Your task to perform on an android device: Open Chrome and go to settings Image 0: 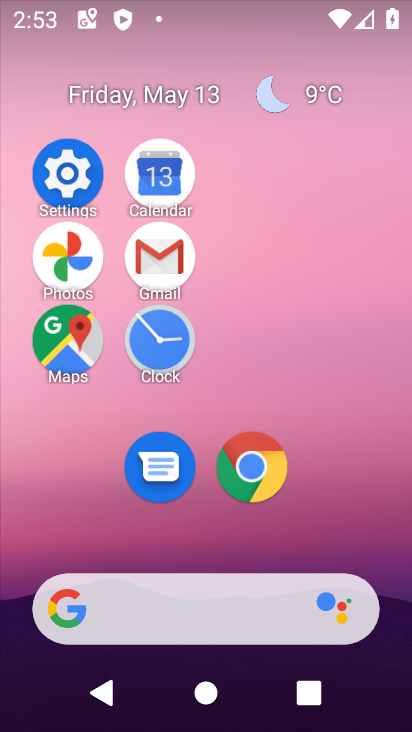
Step 0: click (256, 460)
Your task to perform on an android device: Open Chrome and go to settings Image 1: 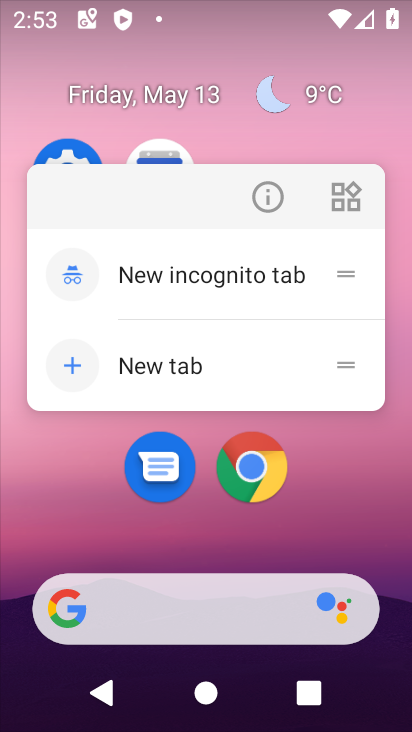
Step 1: click (253, 457)
Your task to perform on an android device: Open Chrome and go to settings Image 2: 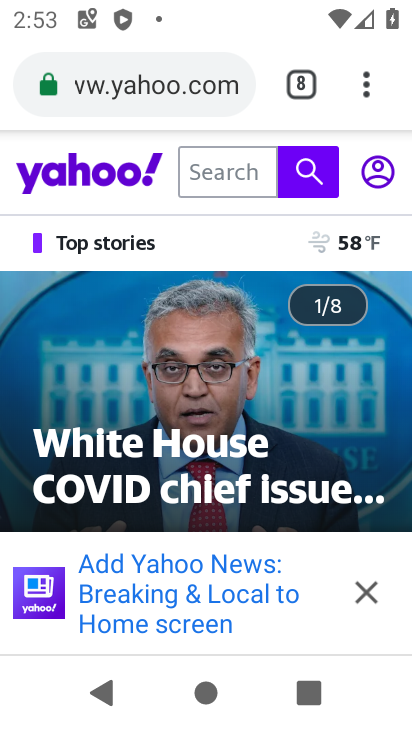
Step 2: click (371, 90)
Your task to perform on an android device: Open Chrome and go to settings Image 3: 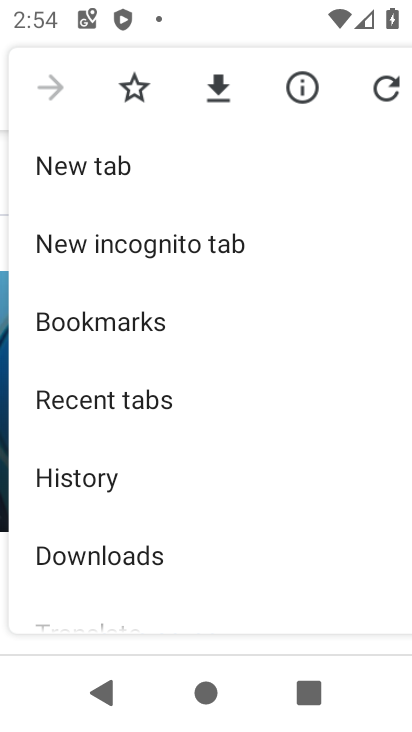
Step 3: drag from (194, 489) to (232, 158)
Your task to perform on an android device: Open Chrome and go to settings Image 4: 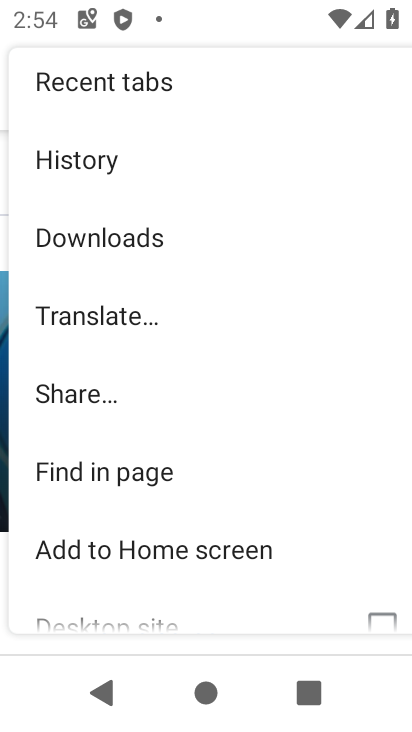
Step 4: drag from (177, 467) to (202, 104)
Your task to perform on an android device: Open Chrome and go to settings Image 5: 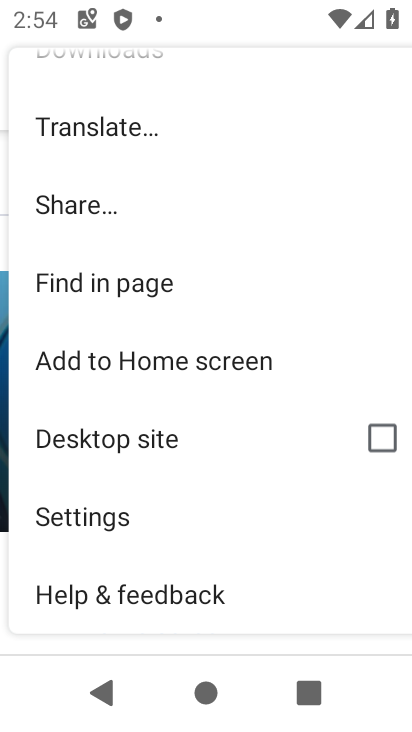
Step 5: click (157, 508)
Your task to perform on an android device: Open Chrome and go to settings Image 6: 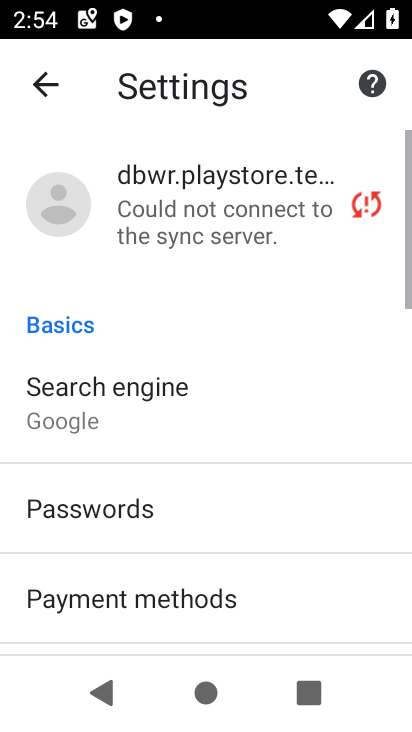
Step 6: task complete